Your task to perform on an android device: Open settings Image 0: 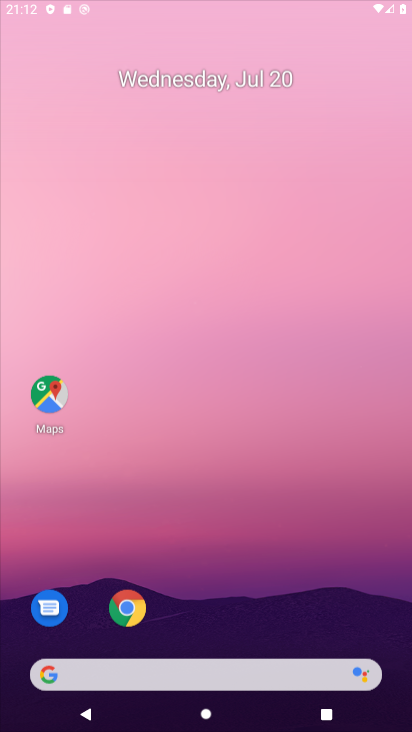
Step 0: click (246, 298)
Your task to perform on an android device: Open settings Image 1: 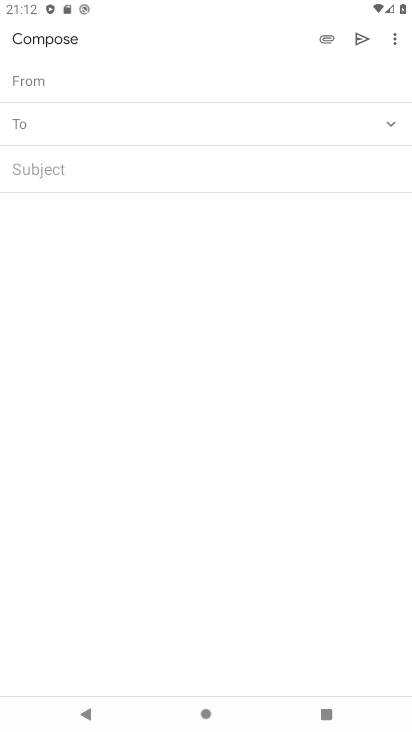
Step 1: drag from (215, 711) to (155, 287)
Your task to perform on an android device: Open settings Image 2: 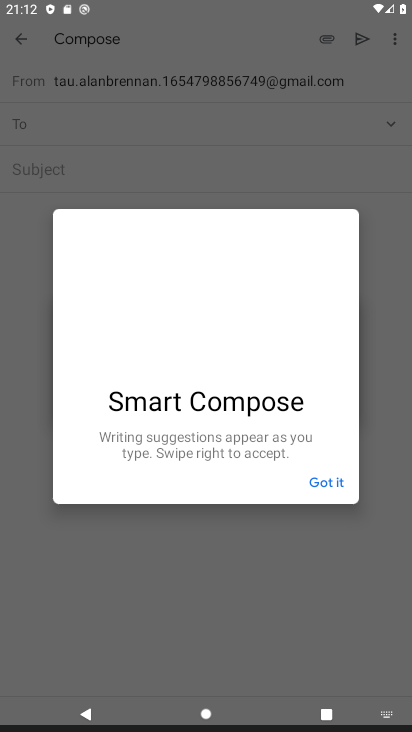
Step 2: press back button
Your task to perform on an android device: Open settings Image 3: 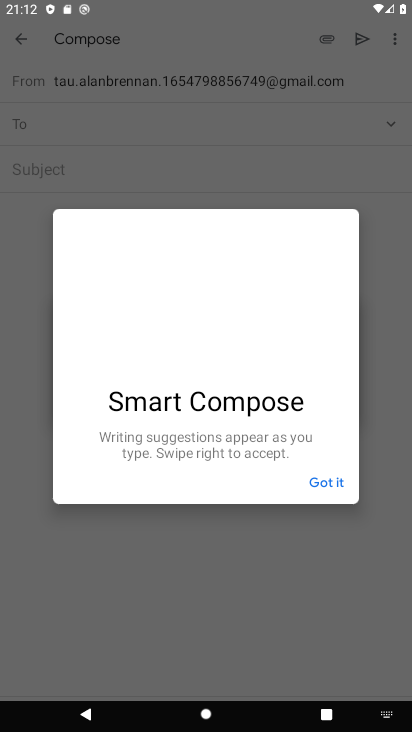
Step 3: click (328, 484)
Your task to perform on an android device: Open settings Image 4: 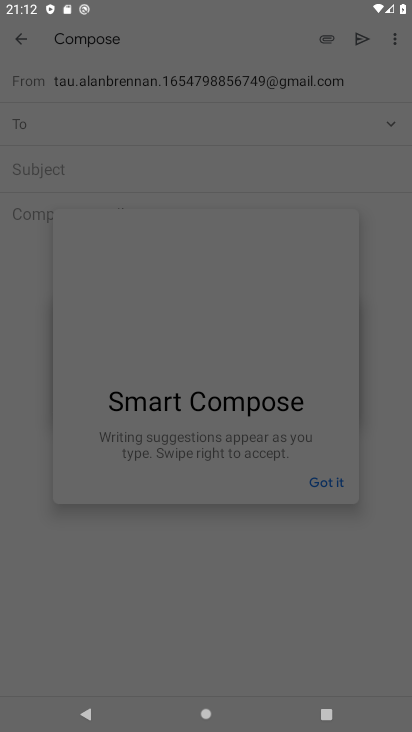
Step 4: click (317, 480)
Your task to perform on an android device: Open settings Image 5: 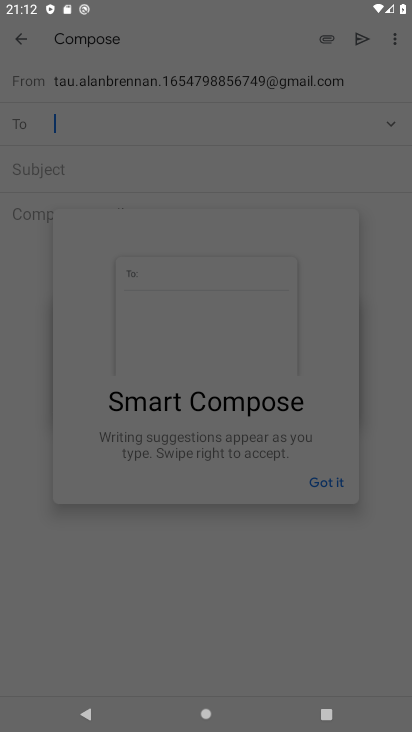
Step 5: click (316, 482)
Your task to perform on an android device: Open settings Image 6: 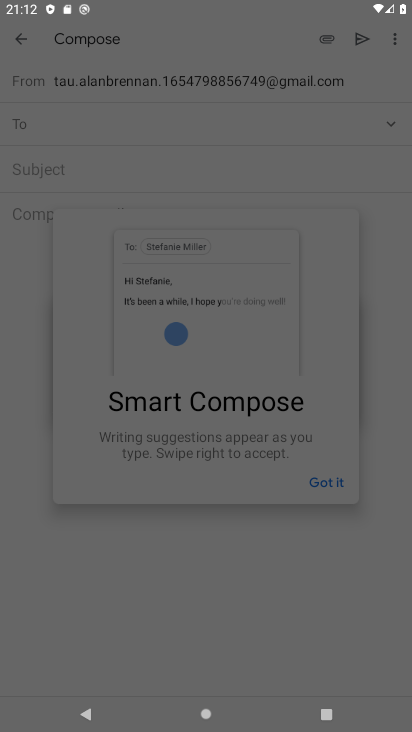
Step 6: click (314, 494)
Your task to perform on an android device: Open settings Image 7: 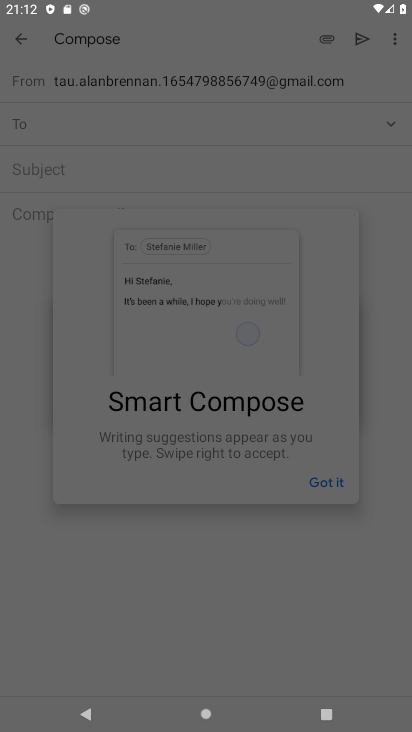
Step 7: click (314, 494)
Your task to perform on an android device: Open settings Image 8: 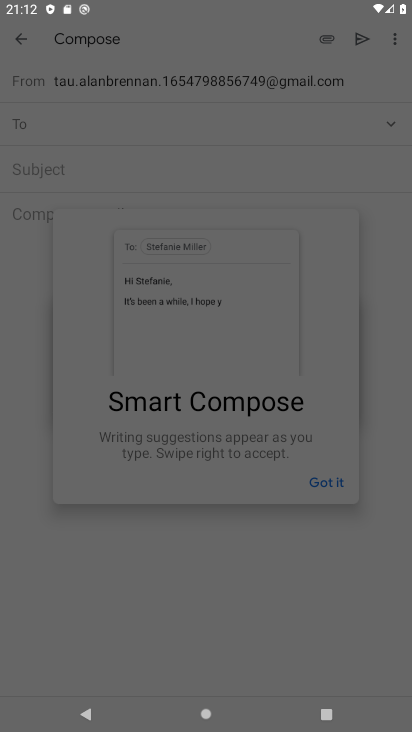
Step 8: click (316, 490)
Your task to perform on an android device: Open settings Image 9: 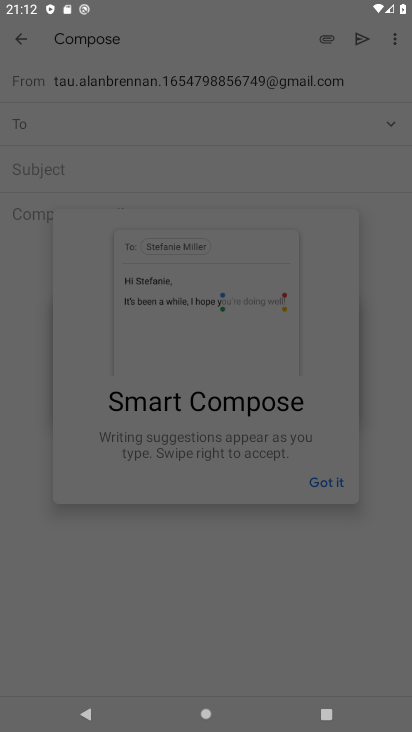
Step 9: click (320, 489)
Your task to perform on an android device: Open settings Image 10: 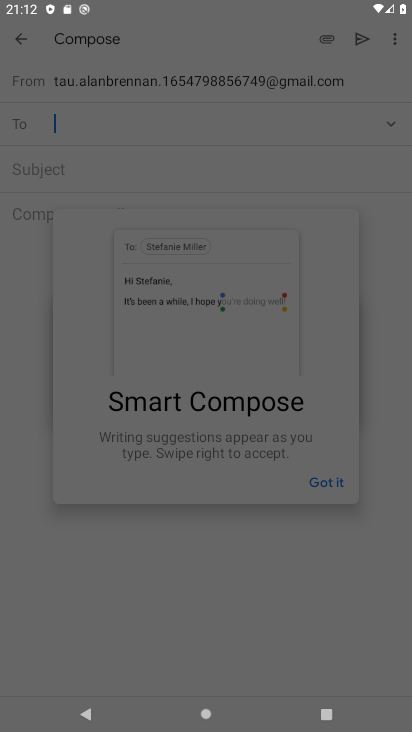
Step 10: click (324, 489)
Your task to perform on an android device: Open settings Image 11: 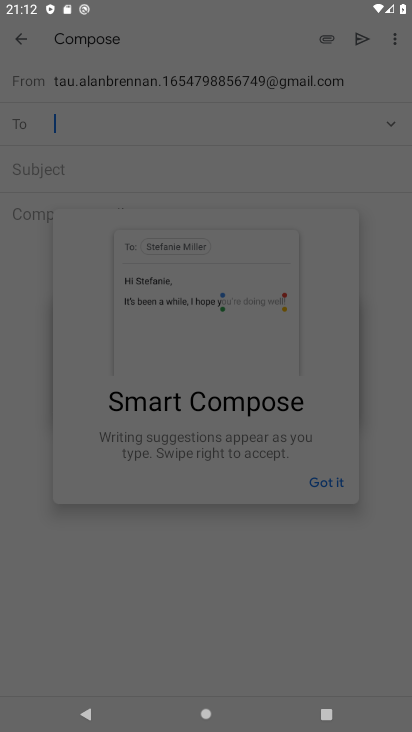
Step 11: click (324, 489)
Your task to perform on an android device: Open settings Image 12: 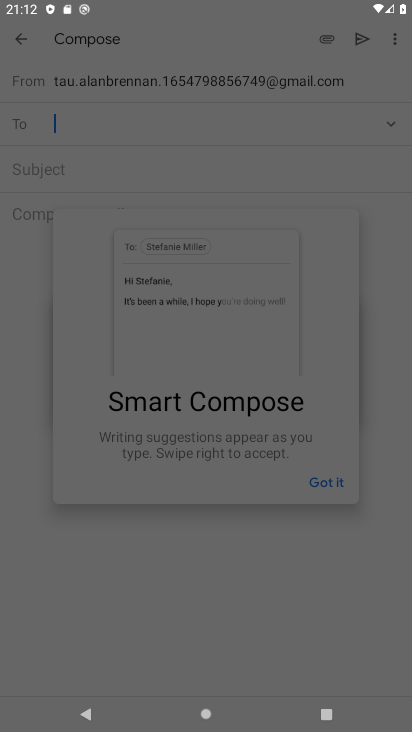
Step 12: click (324, 489)
Your task to perform on an android device: Open settings Image 13: 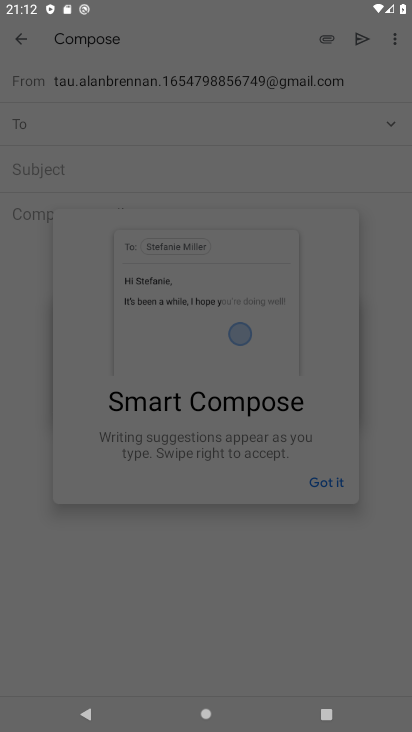
Step 13: click (324, 489)
Your task to perform on an android device: Open settings Image 14: 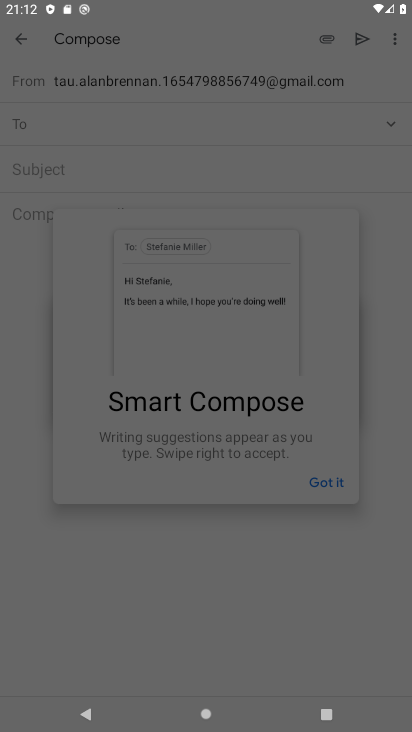
Step 14: click (324, 489)
Your task to perform on an android device: Open settings Image 15: 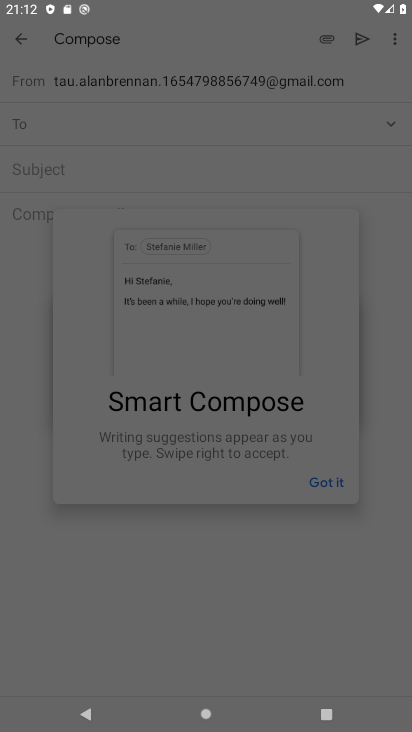
Step 15: click (324, 489)
Your task to perform on an android device: Open settings Image 16: 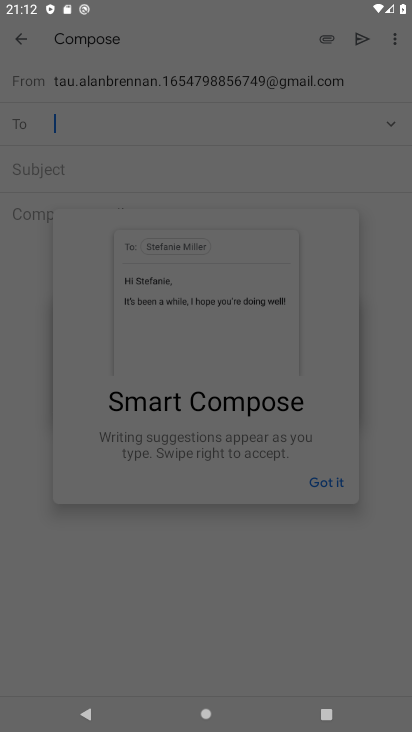
Step 16: click (324, 489)
Your task to perform on an android device: Open settings Image 17: 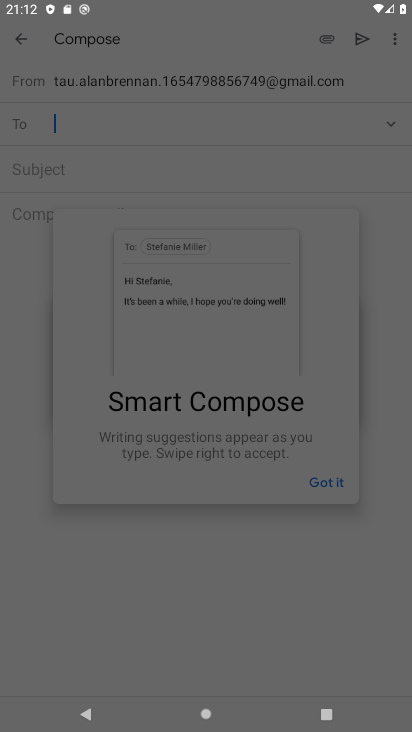
Step 17: click (326, 491)
Your task to perform on an android device: Open settings Image 18: 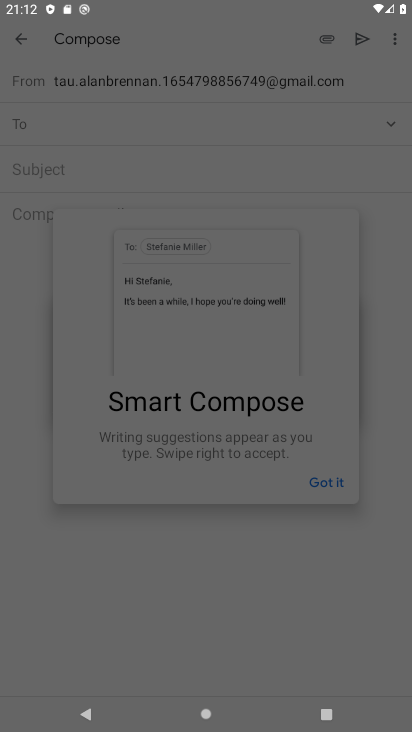
Step 18: click (326, 491)
Your task to perform on an android device: Open settings Image 19: 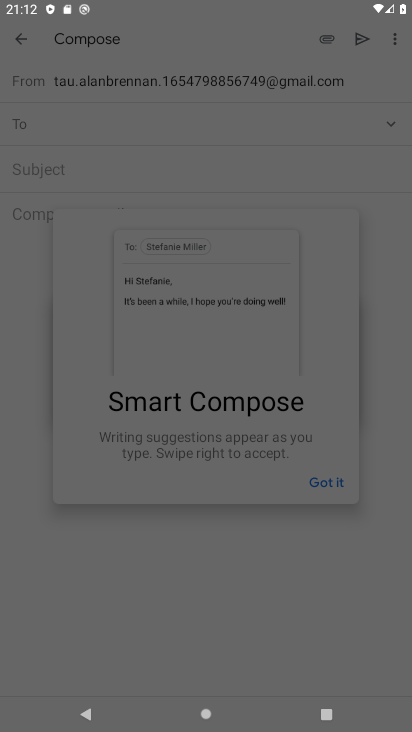
Step 19: click (324, 492)
Your task to perform on an android device: Open settings Image 20: 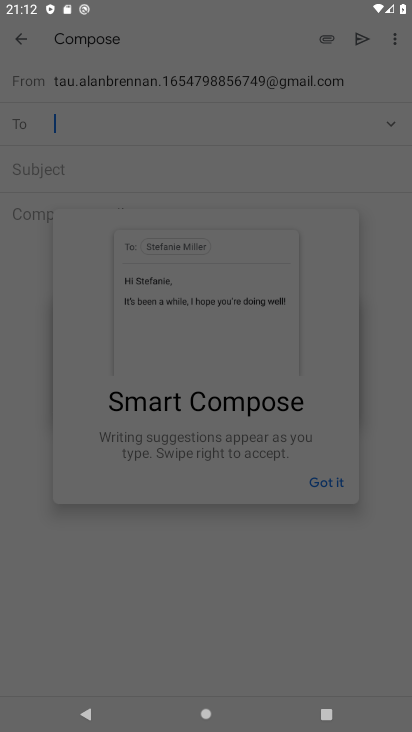
Step 20: click (324, 495)
Your task to perform on an android device: Open settings Image 21: 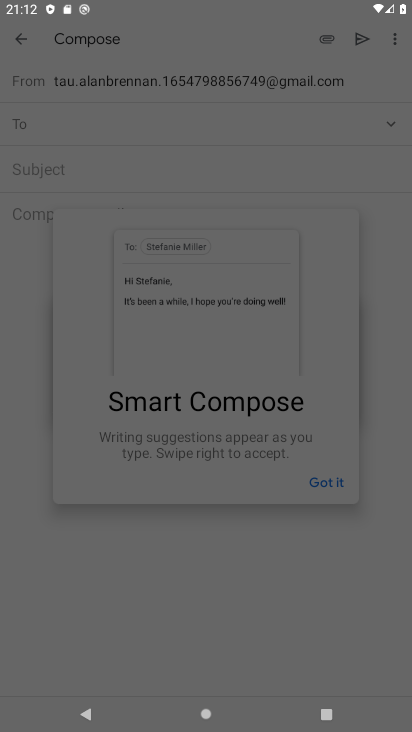
Step 21: click (324, 496)
Your task to perform on an android device: Open settings Image 22: 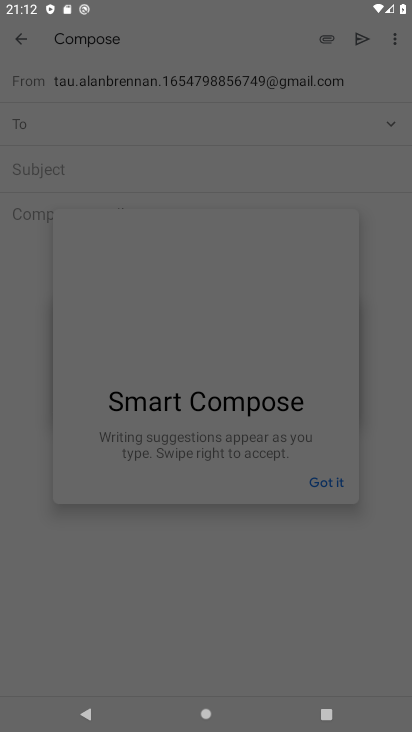
Step 22: click (323, 498)
Your task to perform on an android device: Open settings Image 23: 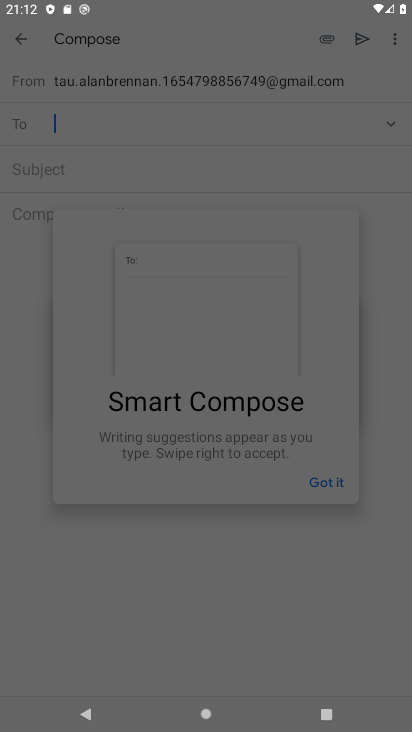
Step 23: click (319, 481)
Your task to perform on an android device: Open settings Image 24: 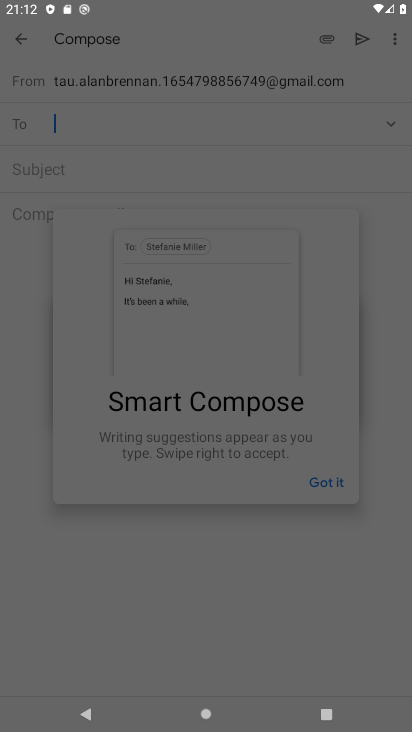
Step 24: click (317, 487)
Your task to perform on an android device: Open settings Image 25: 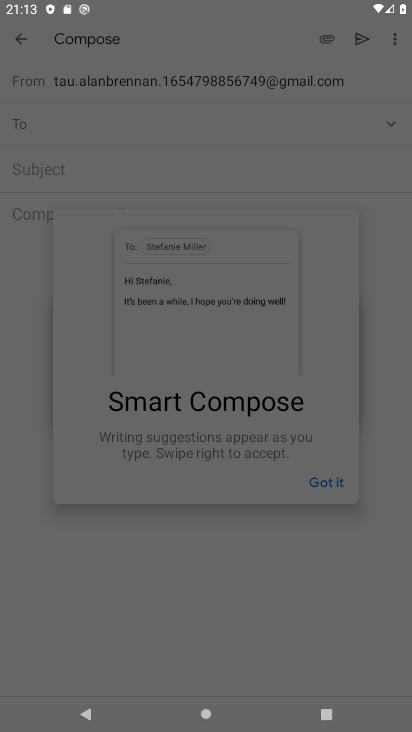
Step 25: task complete